Your task to perform on an android device: Open calendar and show me the second week of next month Image 0: 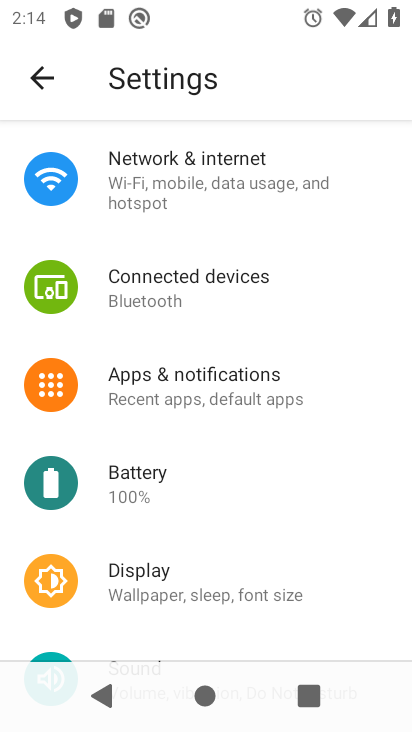
Step 0: press home button
Your task to perform on an android device: Open calendar and show me the second week of next month Image 1: 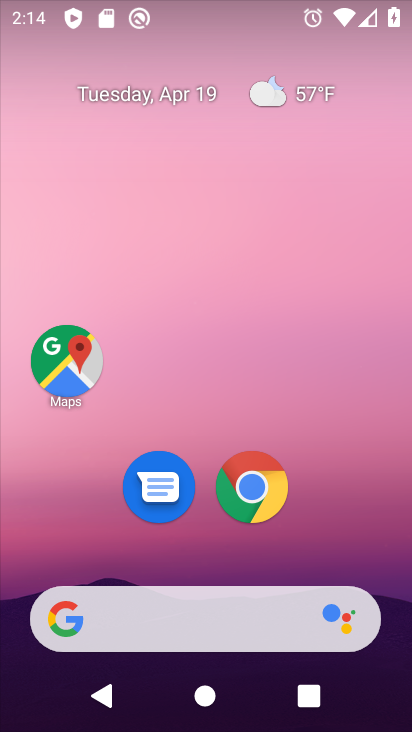
Step 1: drag from (391, 534) to (371, 123)
Your task to perform on an android device: Open calendar and show me the second week of next month Image 2: 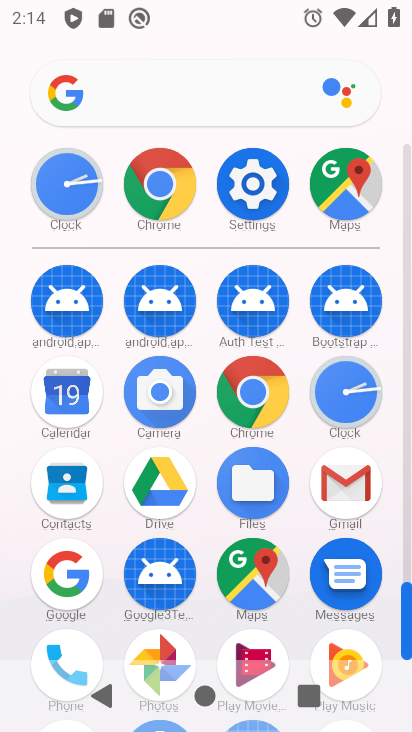
Step 2: click (83, 400)
Your task to perform on an android device: Open calendar and show me the second week of next month Image 3: 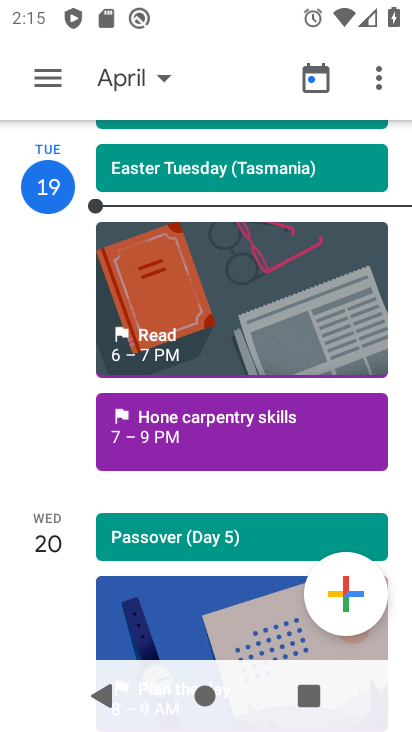
Step 3: click (121, 78)
Your task to perform on an android device: Open calendar and show me the second week of next month Image 4: 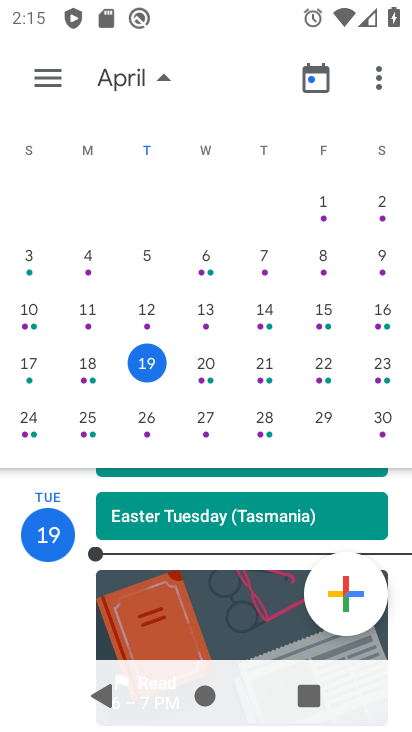
Step 4: drag from (363, 185) to (0, 222)
Your task to perform on an android device: Open calendar and show me the second week of next month Image 5: 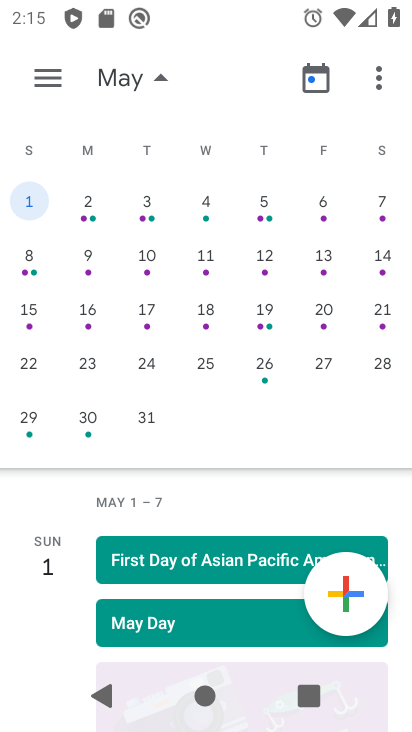
Step 5: click (26, 259)
Your task to perform on an android device: Open calendar and show me the second week of next month Image 6: 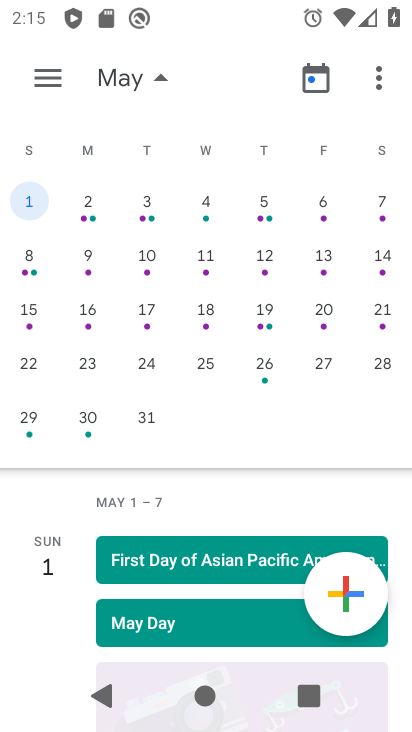
Step 6: click (33, 256)
Your task to perform on an android device: Open calendar and show me the second week of next month Image 7: 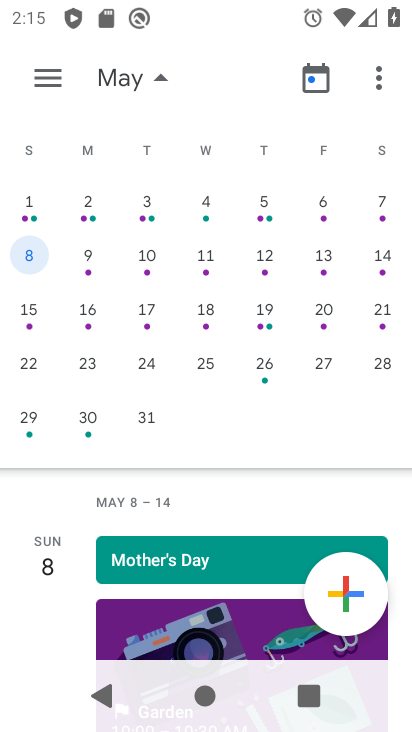
Step 7: task complete